Your task to perform on an android device: Go to location settings Image 0: 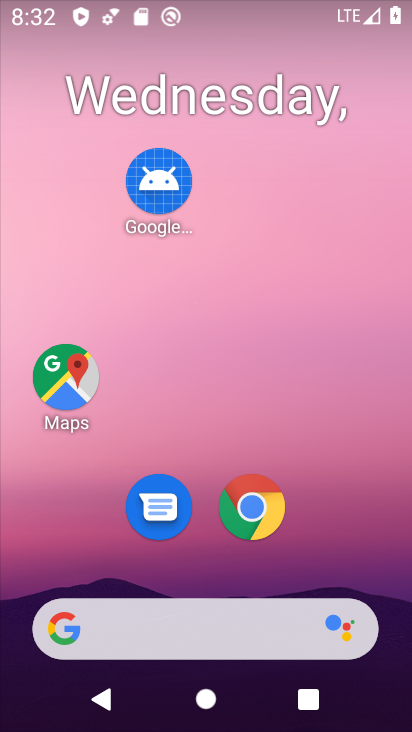
Step 0: drag from (227, 564) to (151, 28)
Your task to perform on an android device: Go to location settings Image 1: 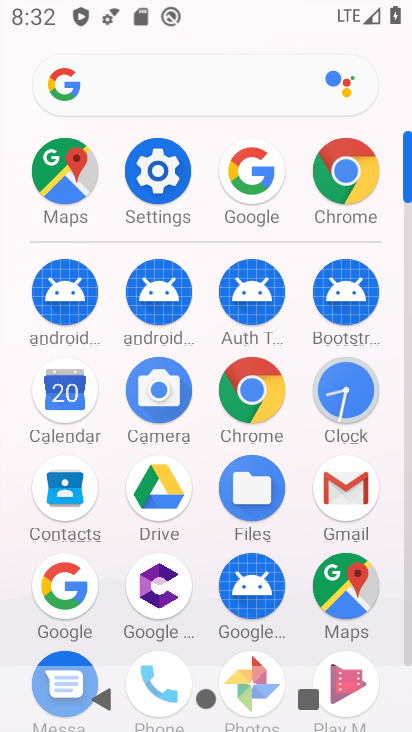
Step 1: click (161, 180)
Your task to perform on an android device: Go to location settings Image 2: 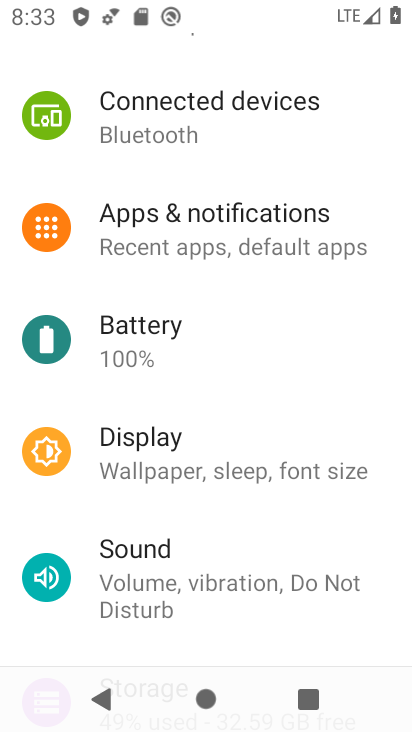
Step 2: drag from (269, 498) to (228, 14)
Your task to perform on an android device: Go to location settings Image 3: 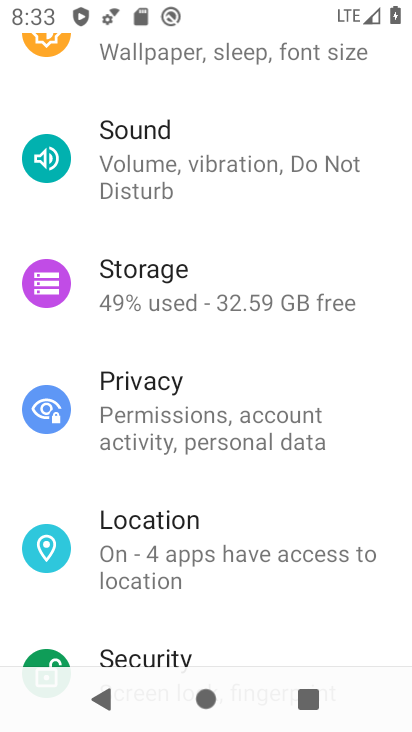
Step 3: click (169, 524)
Your task to perform on an android device: Go to location settings Image 4: 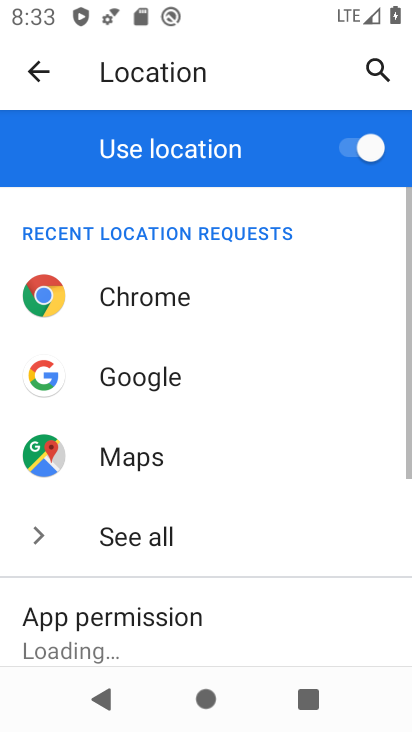
Step 4: task complete